Your task to perform on an android device: turn off javascript in the chrome app Image 0: 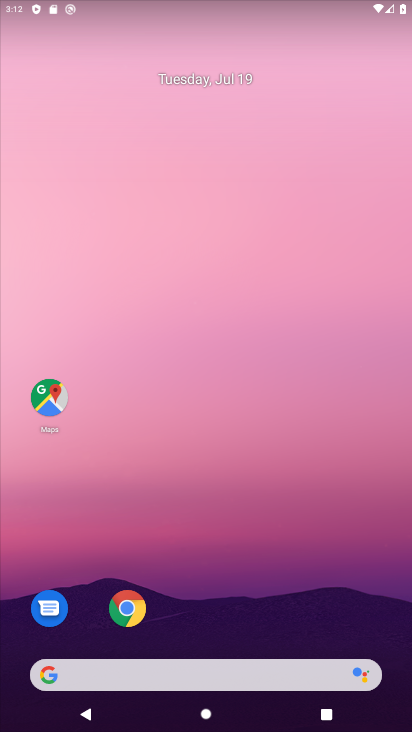
Step 0: drag from (83, 557) to (325, 90)
Your task to perform on an android device: turn off javascript in the chrome app Image 1: 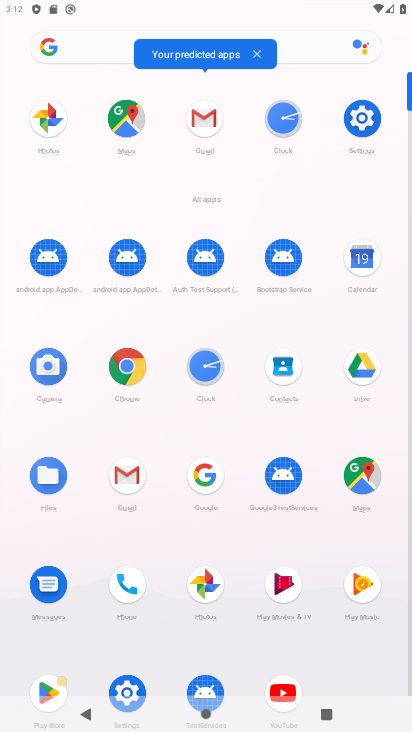
Step 1: click (124, 368)
Your task to perform on an android device: turn off javascript in the chrome app Image 2: 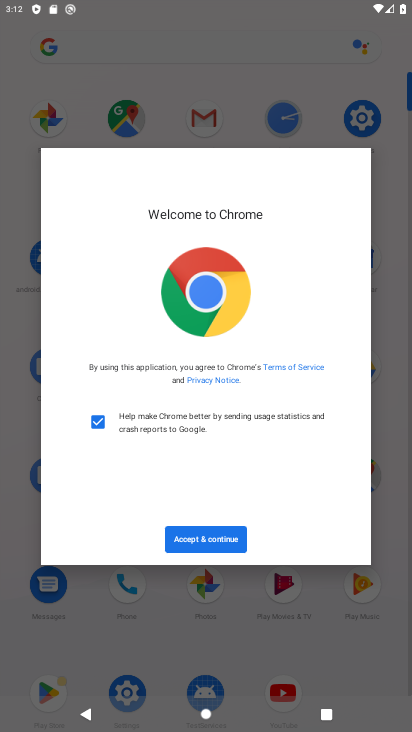
Step 2: click (202, 532)
Your task to perform on an android device: turn off javascript in the chrome app Image 3: 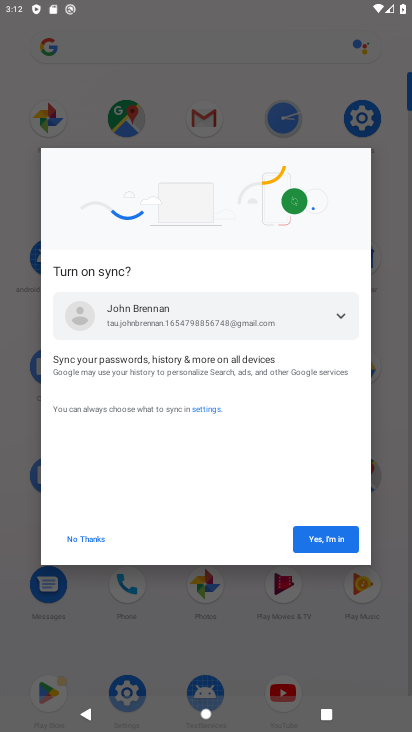
Step 3: click (76, 542)
Your task to perform on an android device: turn off javascript in the chrome app Image 4: 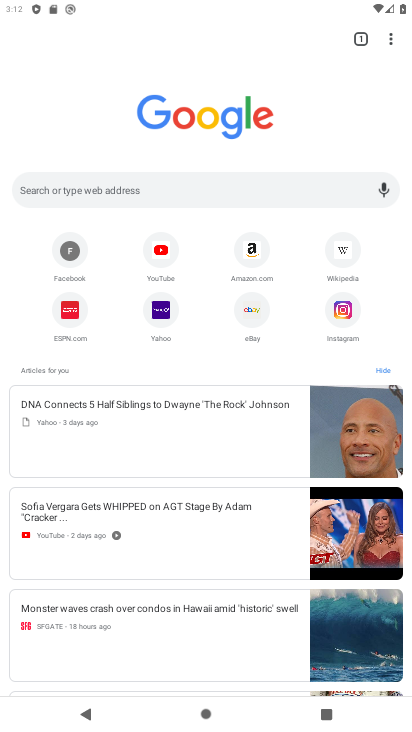
Step 4: click (393, 34)
Your task to perform on an android device: turn off javascript in the chrome app Image 5: 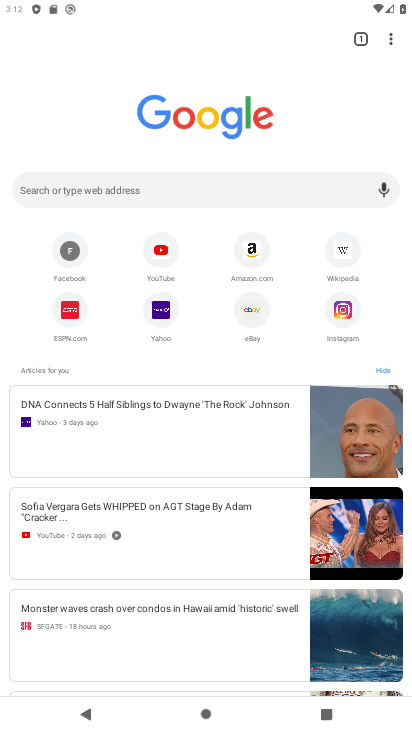
Step 5: click (390, 39)
Your task to perform on an android device: turn off javascript in the chrome app Image 6: 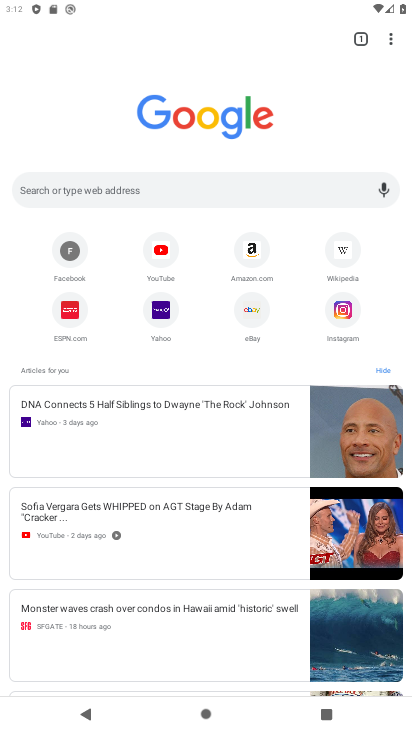
Step 6: click (392, 32)
Your task to perform on an android device: turn off javascript in the chrome app Image 7: 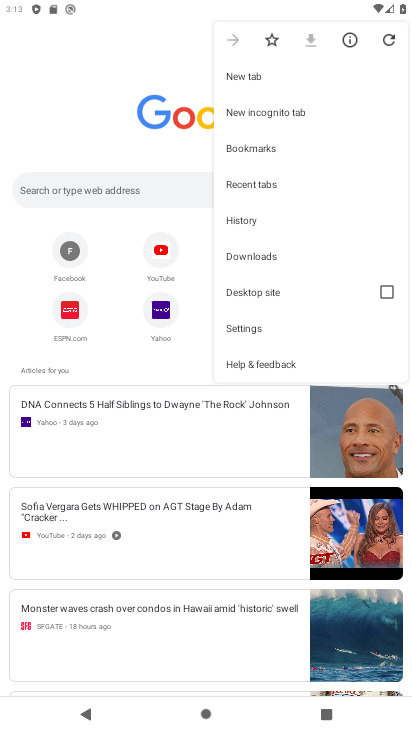
Step 7: click (245, 328)
Your task to perform on an android device: turn off javascript in the chrome app Image 8: 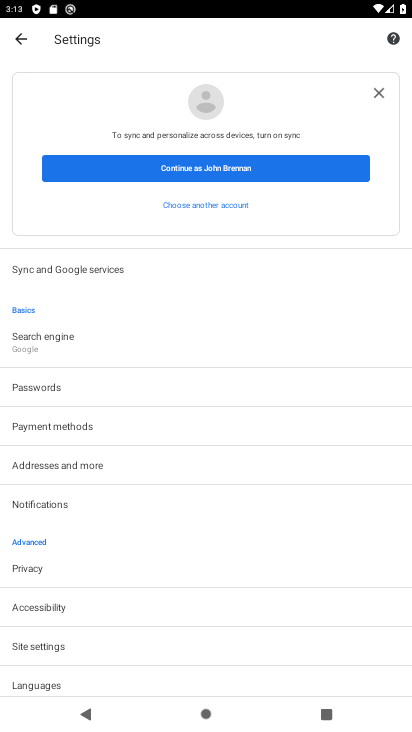
Step 8: click (59, 640)
Your task to perform on an android device: turn off javascript in the chrome app Image 9: 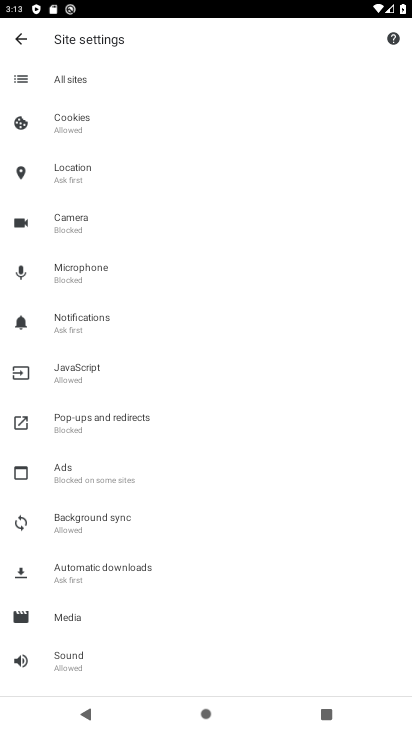
Step 9: click (91, 365)
Your task to perform on an android device: turn off javascript in the chrome app Image 10: 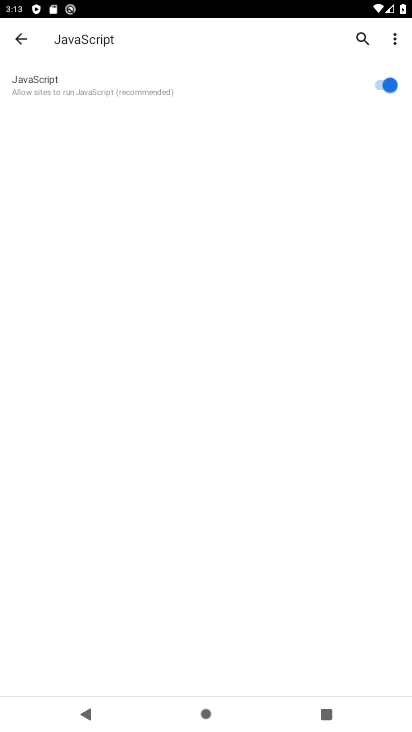
Step 10: click (394, 88)
Your task to perform on an android device: turn off javascript in the chrome app Image 11: 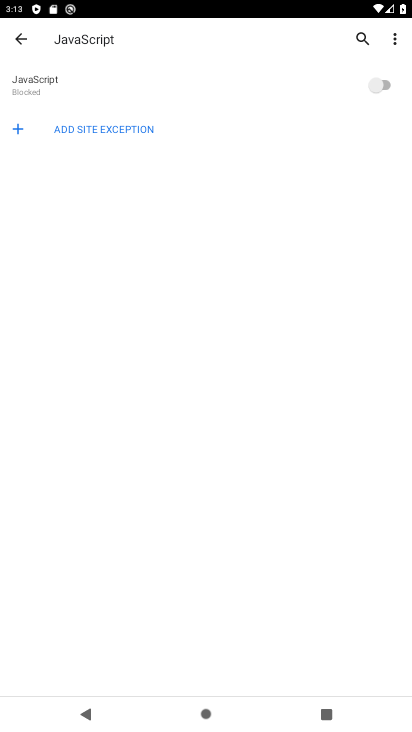
Step 11: task complete